Your task to perform on an android device: turn off priority inbox in the gmail app Image 0: 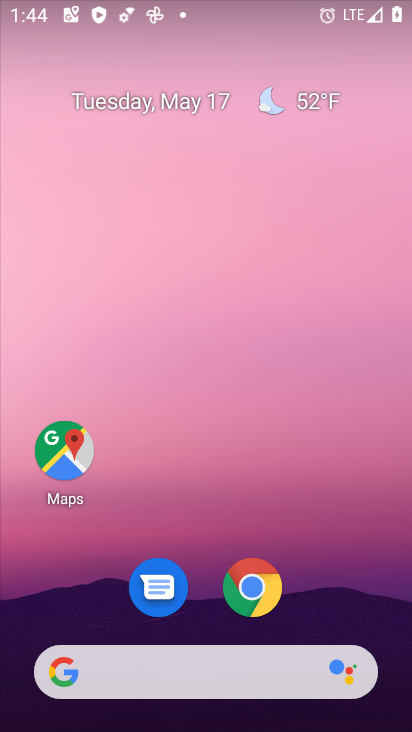
Step 0: drag from (369, 588) to (283, 384)
Your task to perform on an android device: turn off priority inbox in the gmail app Image 1: 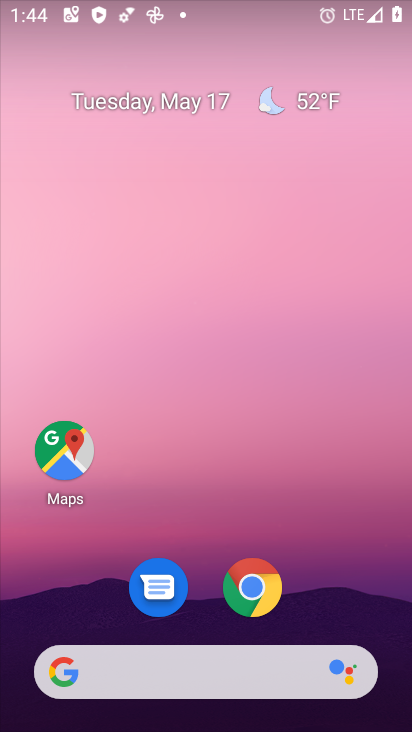
Step 1: drag from (338, 557) to (309, 250)
Your task to perform on an android device: turn off priority inbox in the gmail app Image 2: 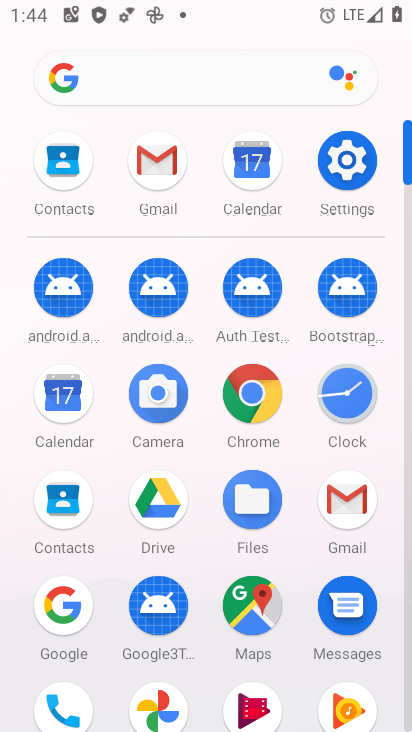
Step 2: click (154, 167)
Your task to perform on an android device: turn off priority inbox in the gmail app Image 3: 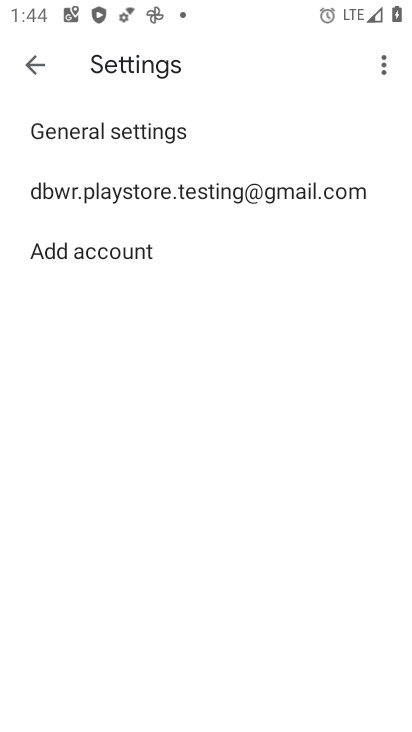
Step 3: click (25, 62)
Your task to perform on an android device: turn off priority inbox in the gmail app Image 4: 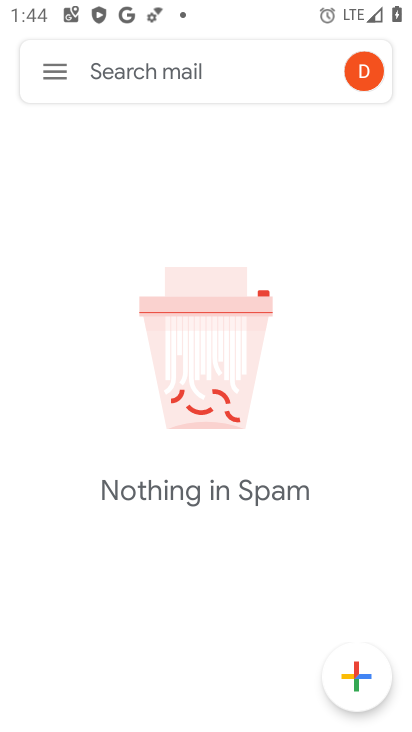
Step 4: click (36, 65)
Your task to perform on an android device: turn off priority inbox in the gmail app Image 5: 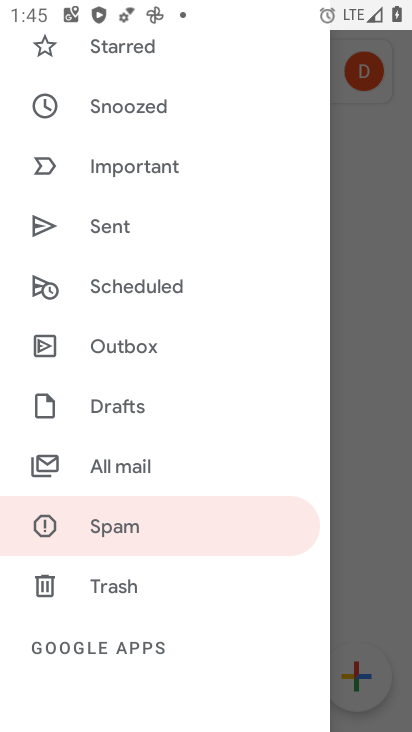
Step 5: drag from (82, 606) to (87, 453)
Your task to perform on an android device: turn off priority inbox in the gmail app Image 6: 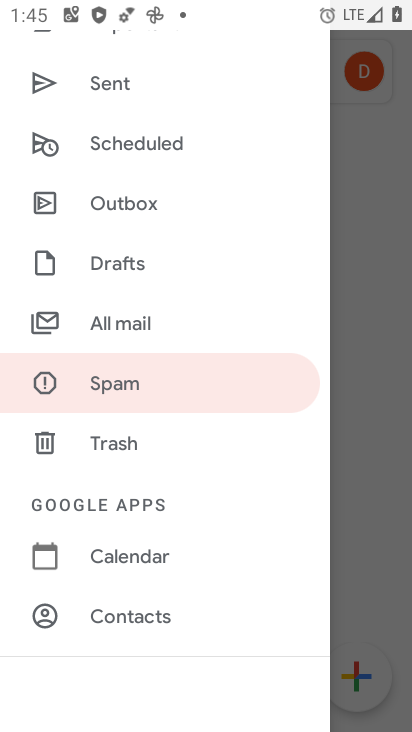
Step 6: drag from (133, 641) to (117, 240)
Your task to perform on an android device: turn off priority inbox in the gmail app Image 7: 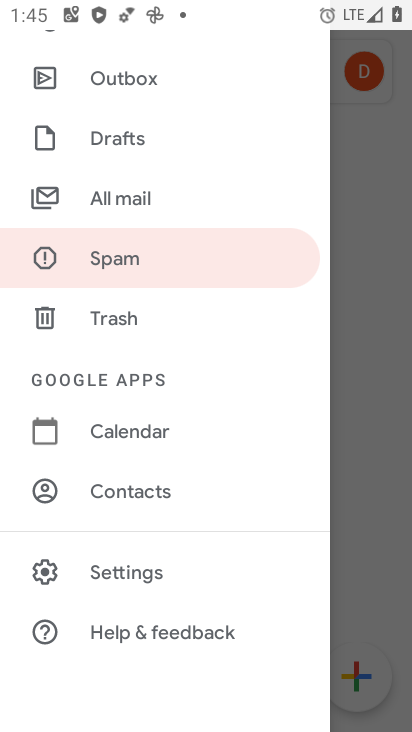
Step 7: click (124, 558)
Your task to perform on an android device: turn off priority inbox in the gmail app Image 8: 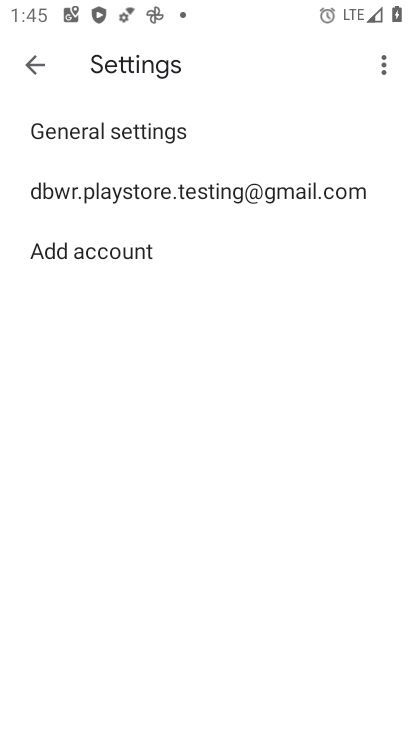
Step 8: click (144, 189)
Your task to perform on an android device: turn off priority inbox in the gmail app Image 9: 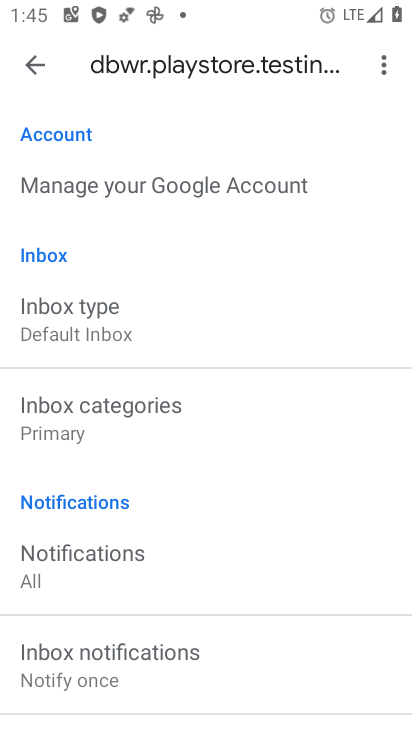
Step 9: drag from (182, 510) to (180, 391)
Your task to perform on an android device: turn off priority inbox in the gmail app Image 10: 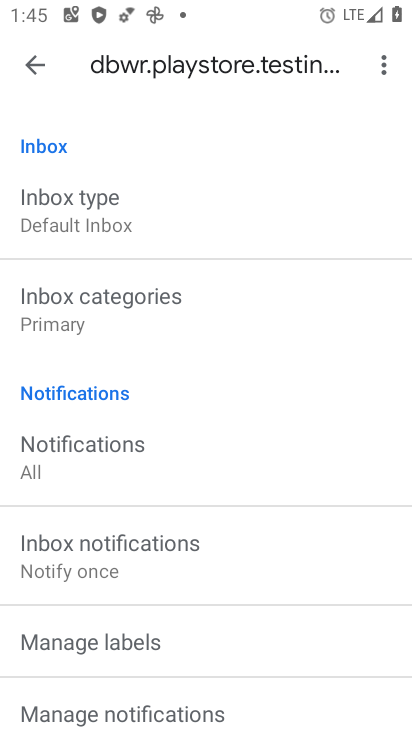
Step 10: drag from (180, 480) to (192, 552)
Your task to perform on an android device: turn off priority inbox in the gmail app Image 11: 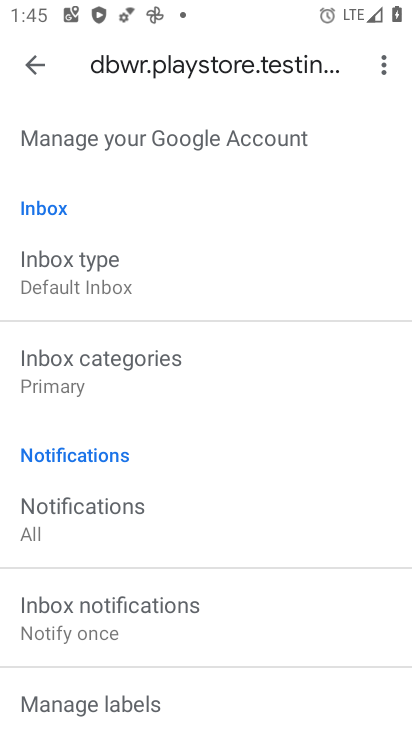
Step 11: click (153, 294)
Your task to perform on an android device: turn off priority inbox in the gmail app Image 12: 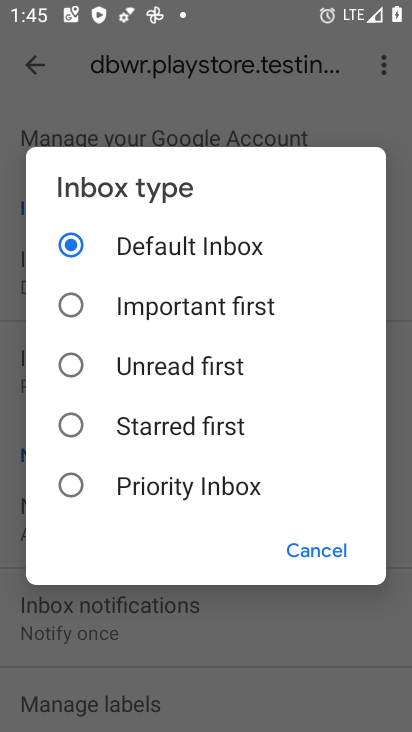
Step 12: click (142, 233)
Your task to perform on an android device: turn off priority inbox in the gmail app Image 13: 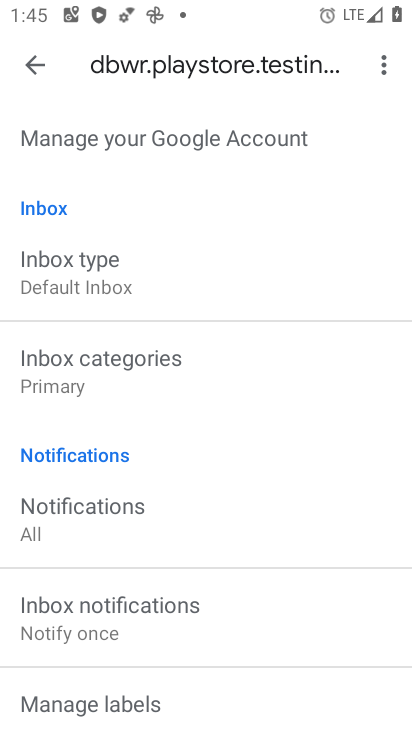
Step 13: task complete